Your task to perform on an android device: Go to eBay Image 0: 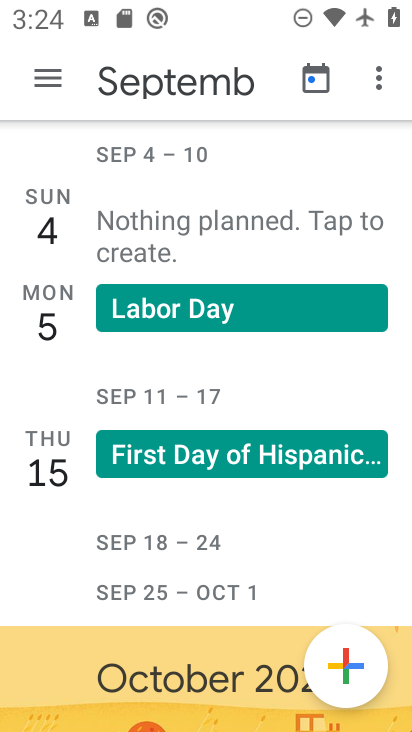
Step 0: press home button
Your task to perform on an android device: Go to eBay Image 1: 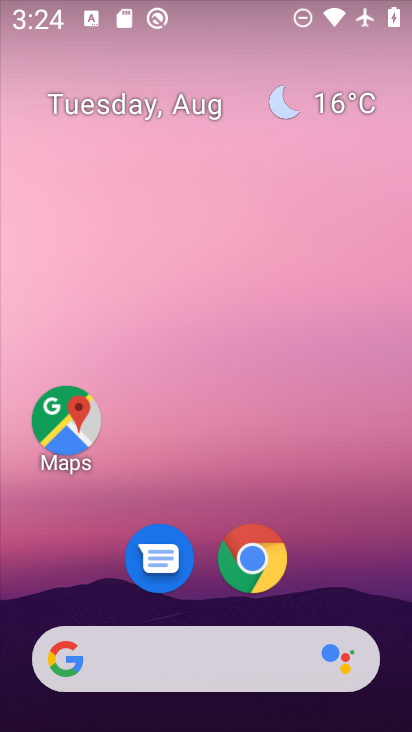
Step 1: click (247, 566)
Your task to perform on an android device: Go to eBay Image 2: 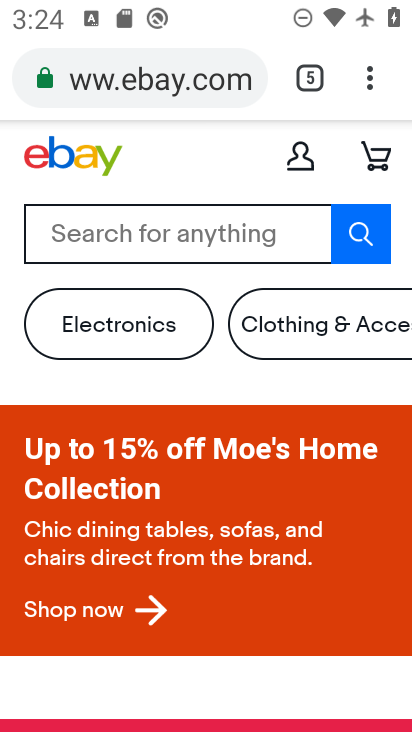
Step 2: task complete